Your task to perform on an android device: see sites visited before in the chrome app Image 0: 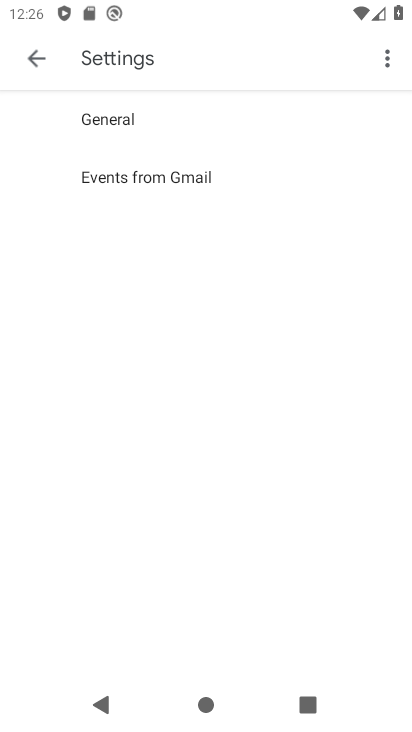
Step 0: press back button
Your task to perform on an android device: see sites visited before in the chrome app Image 1: 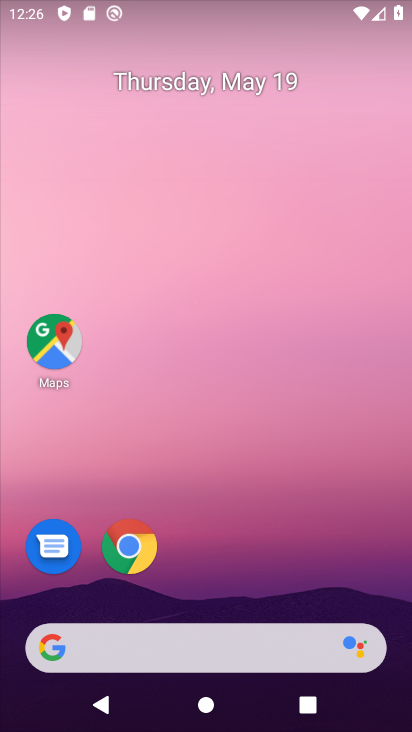
Step 1: click (131, 548)
Your task to perform on an android device: see sites visited before in the chrome app Image 2: 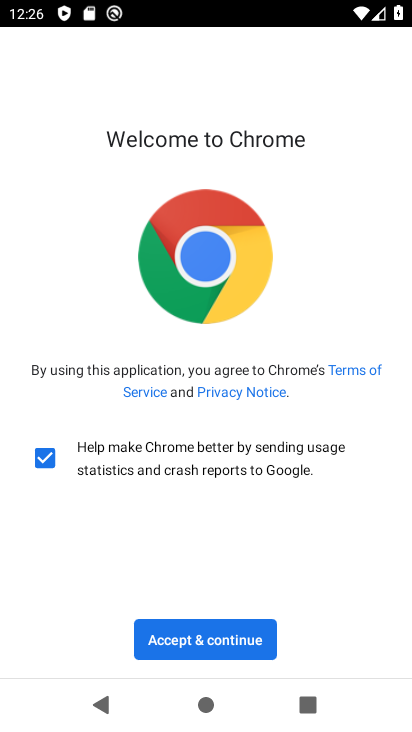
Step 2: click (180, 640)
Your task to perform on an android device: see sites visited before in the chrome app Image 3: 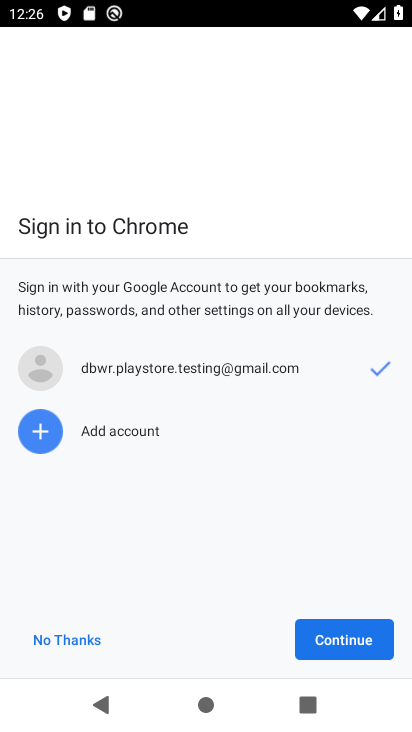
Step 3: click (339, 642)
Your task to perform on an android device: see sites visited before in the chrome app Image 4: 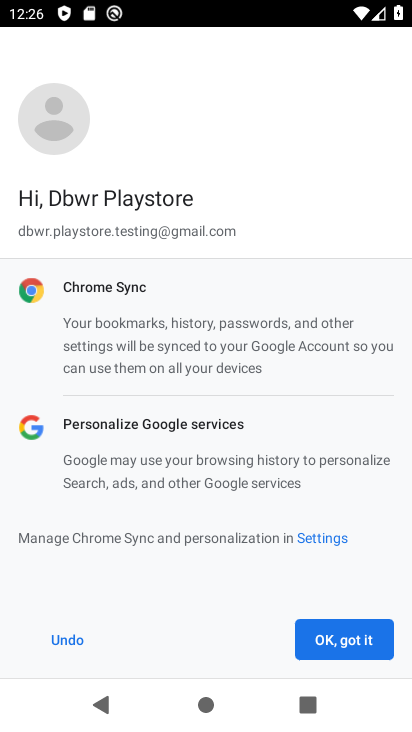
Step 4: click (339, 642)
Your task to perform on an android device: see sites visited before in the chrome app Image 5: 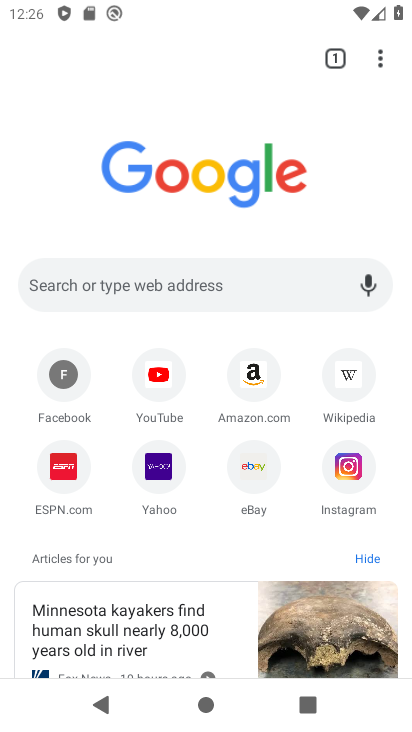
Step 5: click (381, 58)
Your task to perform on an android device: see sites visited before in the chrome app Image 6: 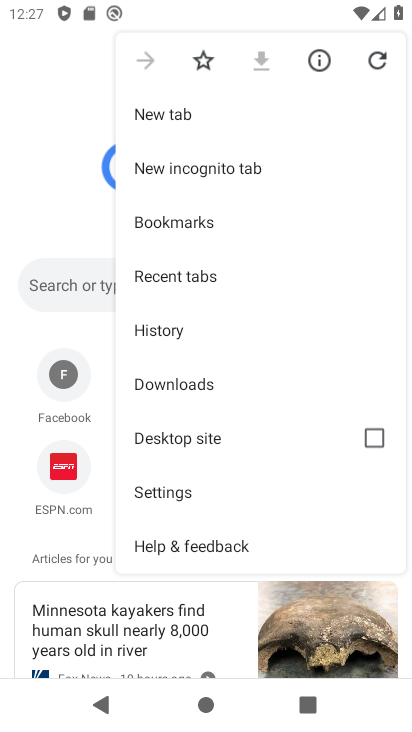
Step 6: click (174, 336)
Your task to perform on an android device: see sites visited before in the chrome app Image 7: 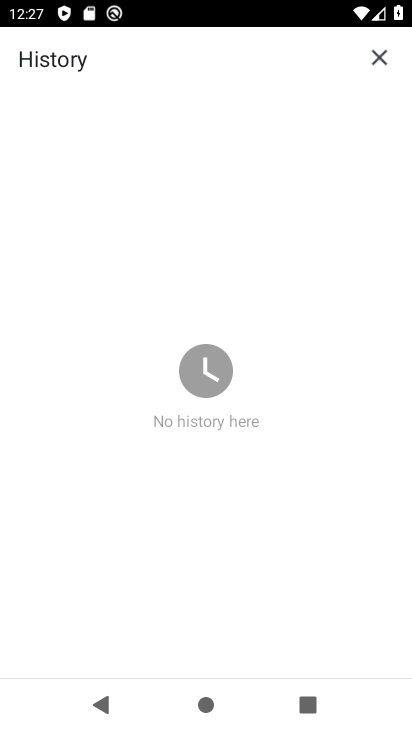
Step 7: task complete